Your task to perform on an android device: check android version Image 0: 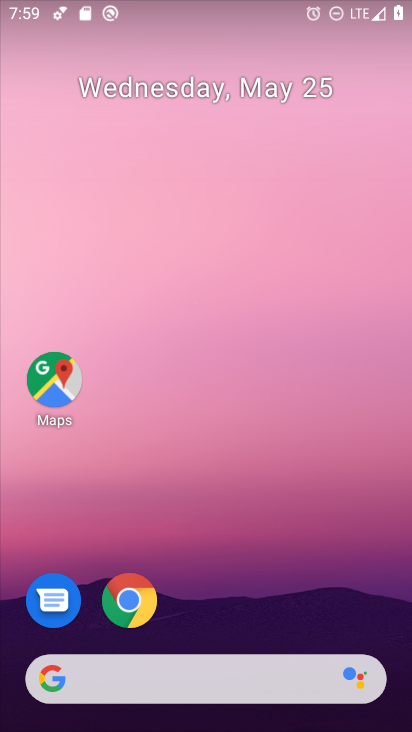
Step 0: drag from (305, 577) to (258, 183)
Your task to perform on an android device: check android version Image 1: 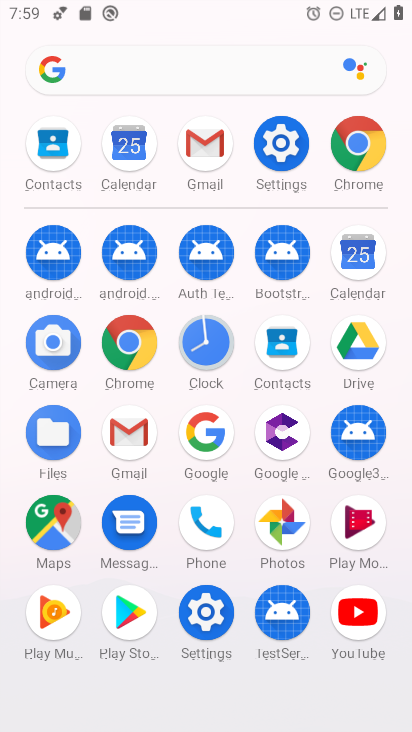
Step 1: click (276, 139)
Your task to perform on an android device: check android version Image 2: 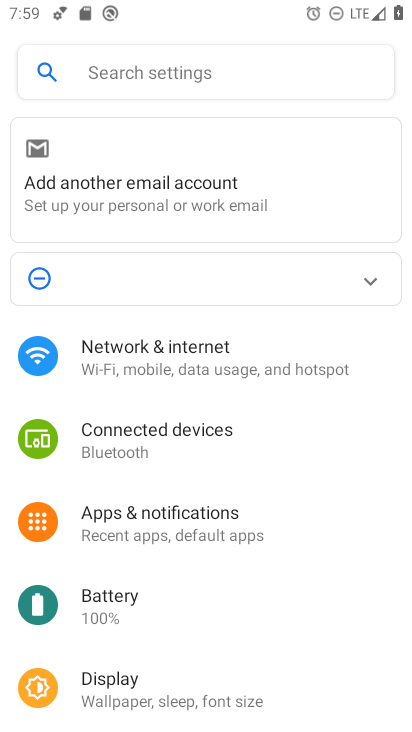
Step 2: drag from (299, 573) to (242, 24)
Your task to perform on an android device: check android version Image 3: 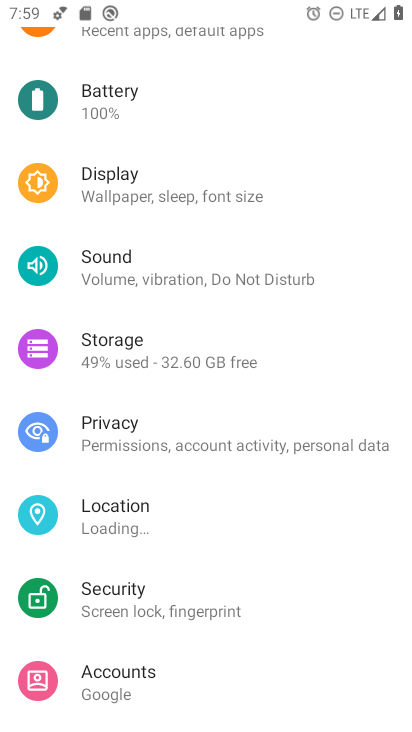
Step 3: drag from (155, 592) to (165, 114)
Your task to perform on an android device: check android version Image 4: 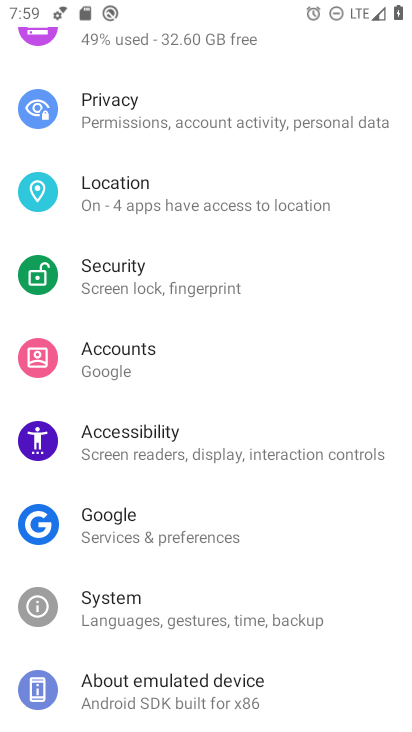
Step 4: drag from (138, 522) to (232, 207)
Your task to perform on an android device: check android version Image 5: 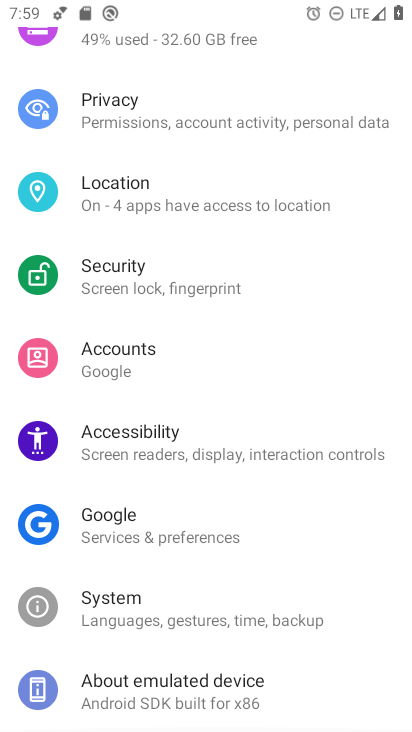
Step 5: click (121, 685)
Your task to perform on an android device: check android version Image 6: 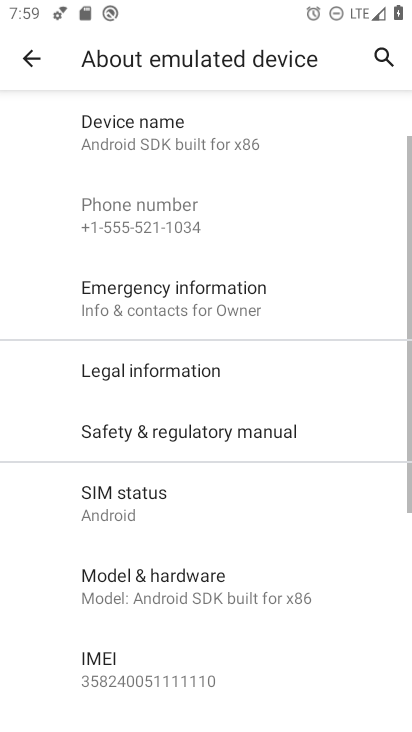
Step 6: drag from (145, 643) to (240, 345)
Your task to perform on an android device: check android version Image 7: 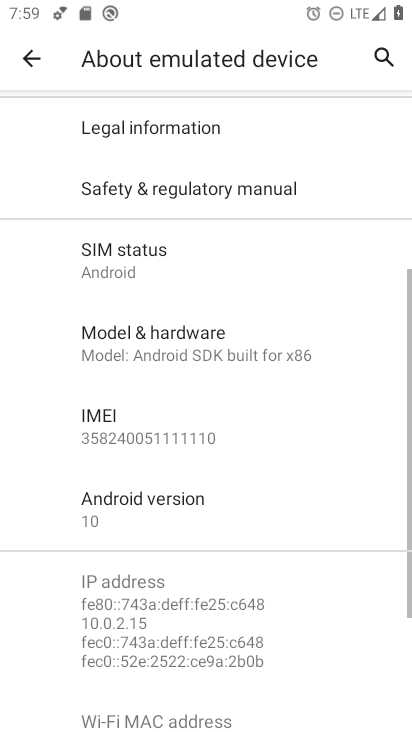
Step 7: click (155, 514)
Your task to perform on an android device: check android version Image 8: 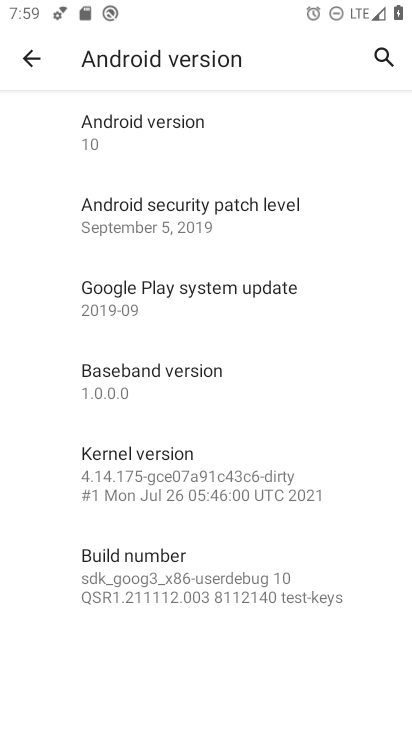
Step 8: task complete